Your task to perform on an android device: see creations saved in the google photos Image 0: 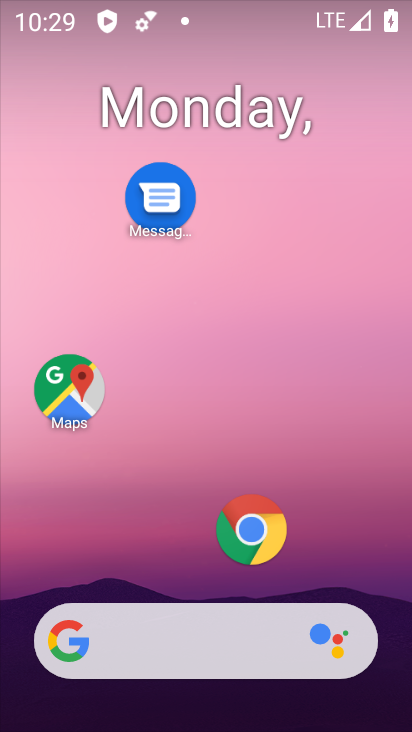
Step 0: drag from (123, 556) to (187, 130)
Your task to perform on an android device: see creations saved in the google photos Image 1: 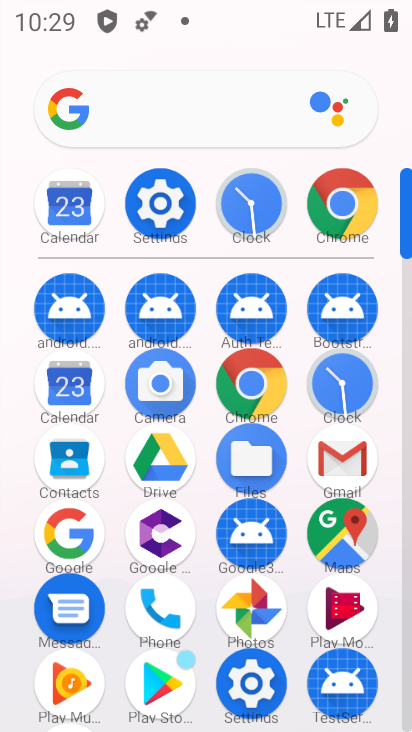
Step 1: click (253, 624)
Your task to perform on an android device: see creations saved in the google photos Image 2: 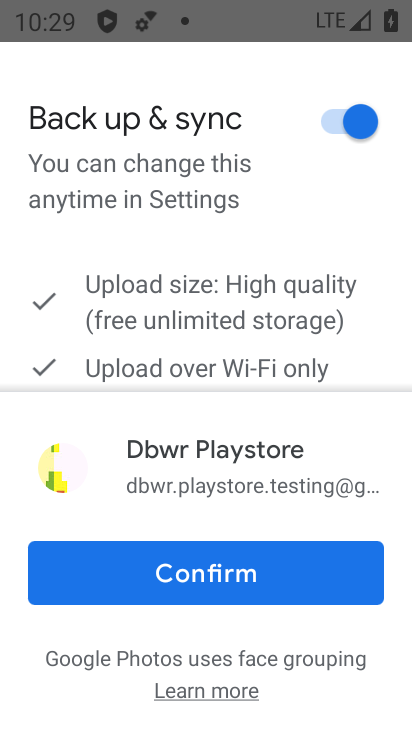
Step 2: click (309, 577)
Your task to perform on an android device: see creations saved in the google photos Image 3: 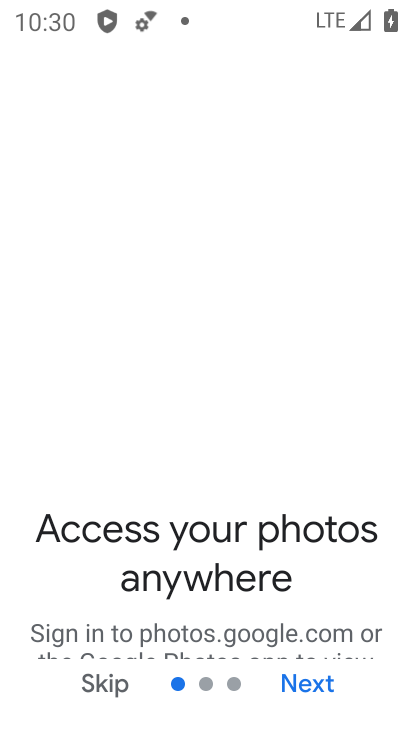
Step 3: click (92, 691)
Your task to perform on an android device: see creations saved in the google photos Image 4: 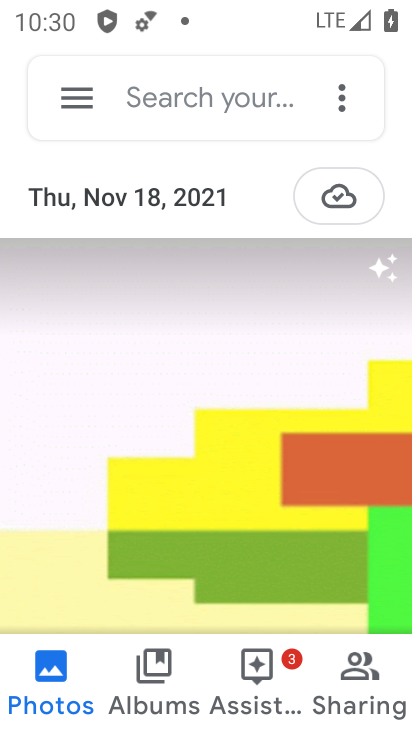
Step 4: click (240, 685)
Your task to perform on an android device: see creations saved in the google photos Image 5: 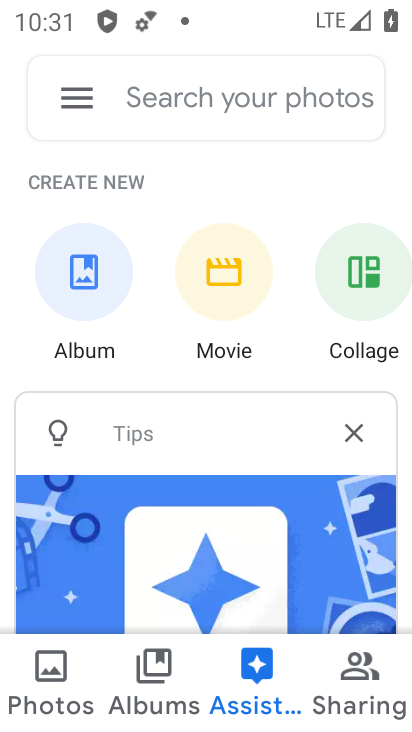
Step 5: task complete